Your task to perform on an android device: Search for sushi restaurants on Maps Image 0: 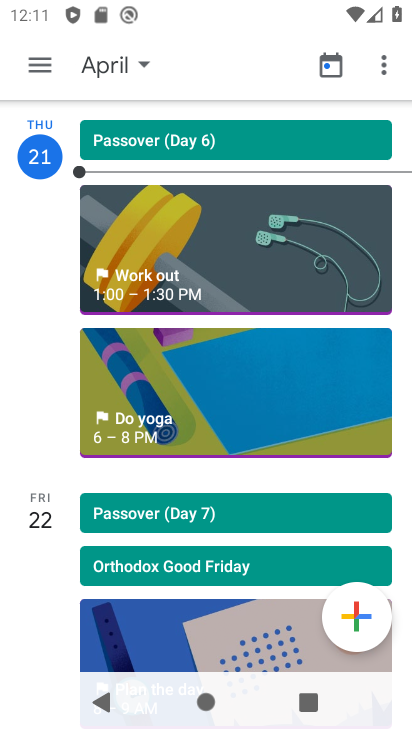
Step 0: press home button
Your task to perform on an android device: Search for sushi restaurants on Maps Image 1: 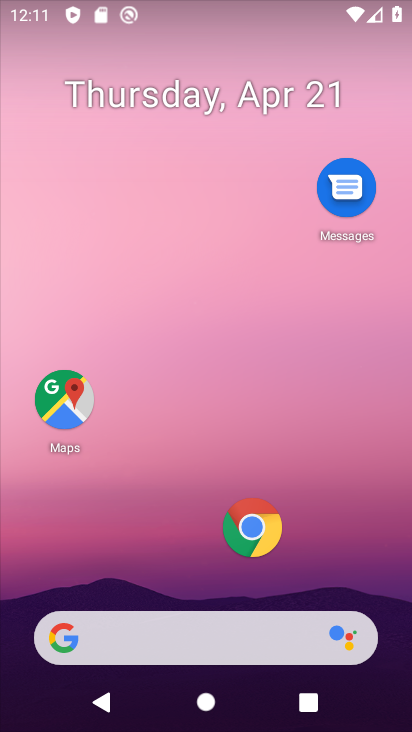
Step 1: drag from (278, 584) to (367, 53)
Your task to perform on an android device: Search for sushi restaurants on Maps Image 2: 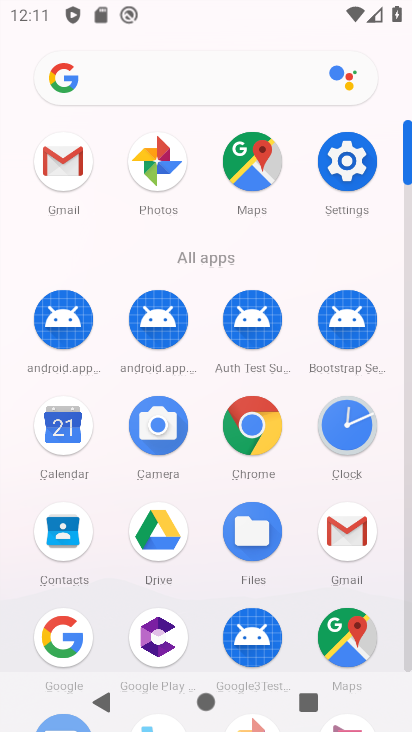
Step 2: click (267, 158)
Your task to perform on an android device: Search for sushi restaurants on Maps Image 3: 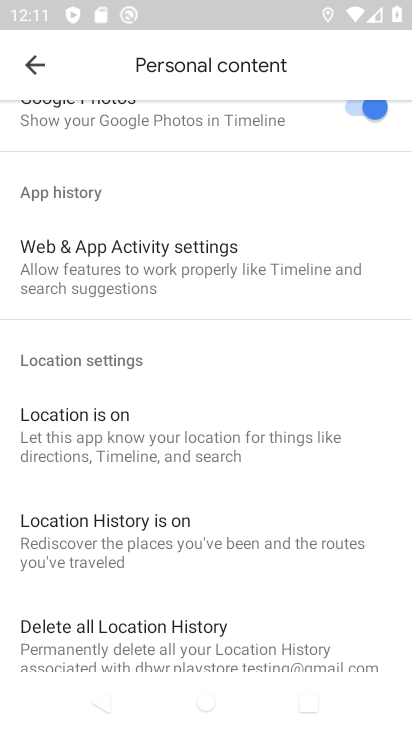
Step 3: click (17, 72)
Your task to perform on an android device: Search for sushi restaurants on Maps Image 4: 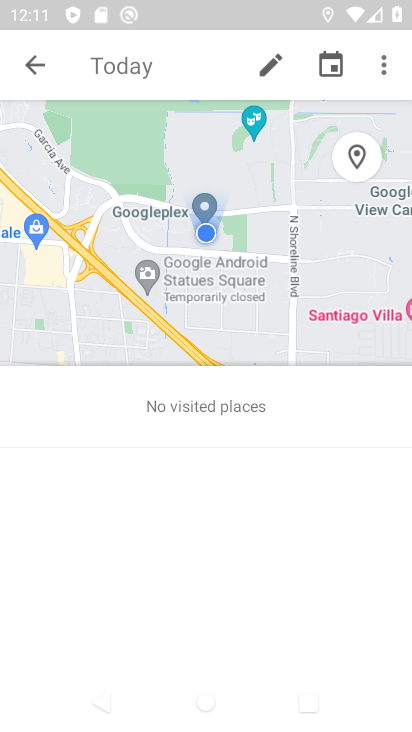
Step 4: click (17, 72)
Your task to perform on an android device: Search for sushi restaurants on Maps Image 5: 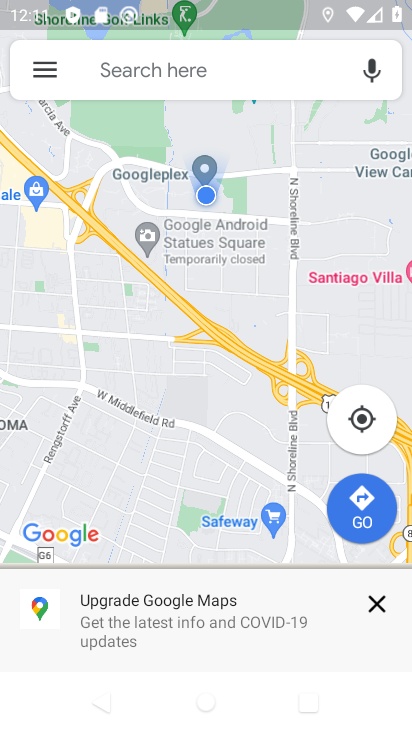
Step 5: click (169, 76)
Your task to perform on an android device: Search for sushi restaurants on Maps Image 6: 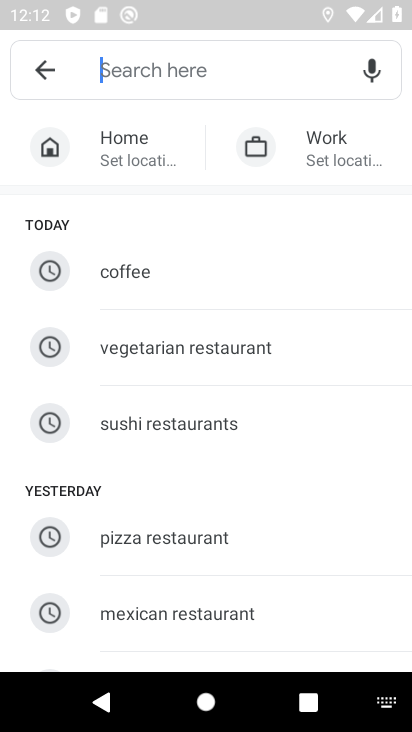
Step 6: type "sushi restaurants"
Your task to perform on an android device: Search for sushi restaurants on Maps Image 7: 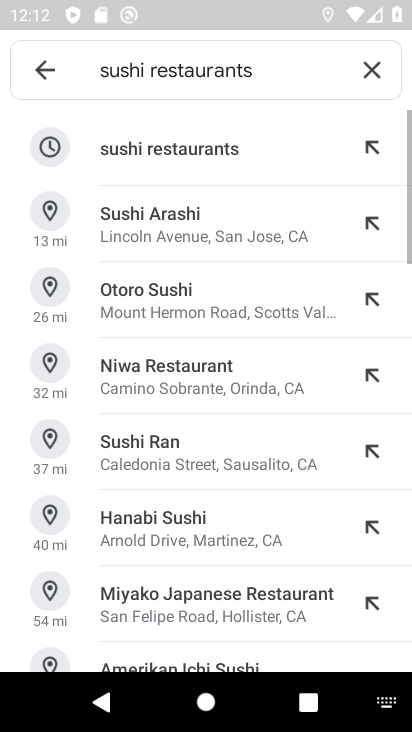
Step 7: click (235, 162)
Your task to perform on an android device: Search for sushi restaurants on Maps Image 8: 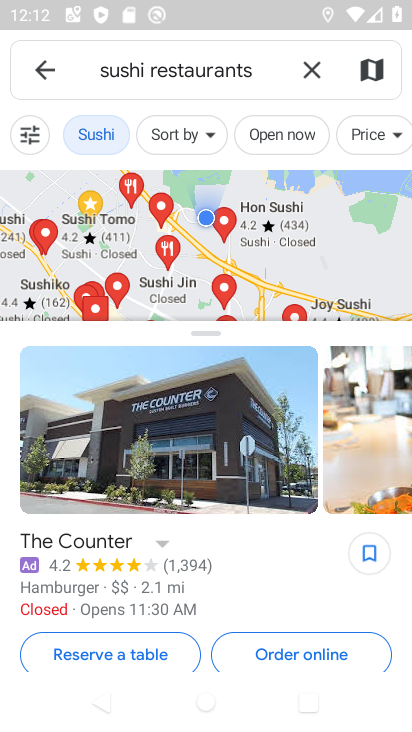
Step 8: task complete